Your task to perform on an android device: show emergency info Image 0: 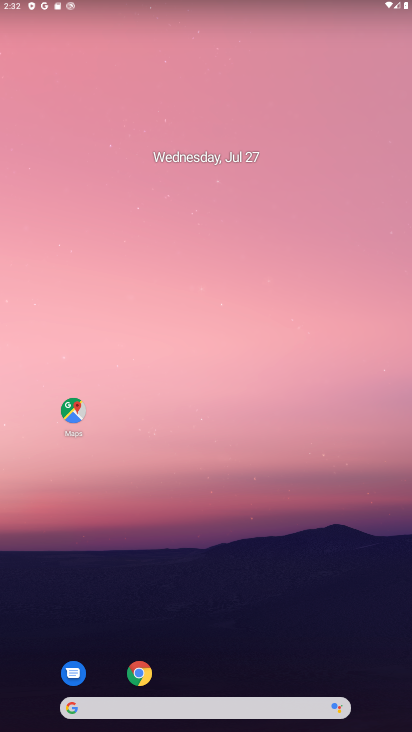
Step 0: drag from (303, 704) to (260, 0)
Your task to perform on an android device: show emergency info Image 1: 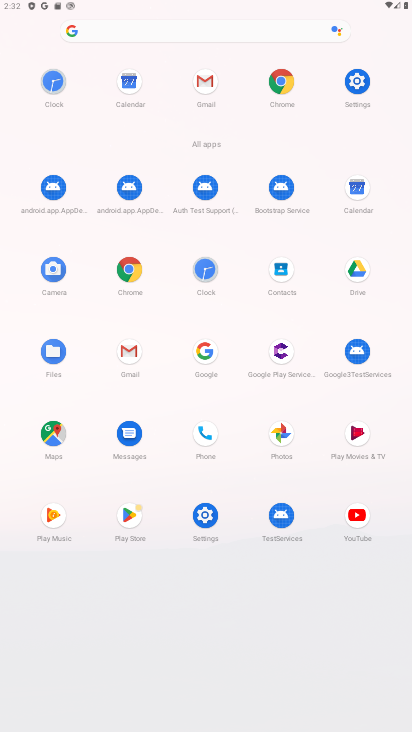
Step 1: drag from (151, 719) to (175, 367)
Your task to perform on an android device: show emergency info Image 2: 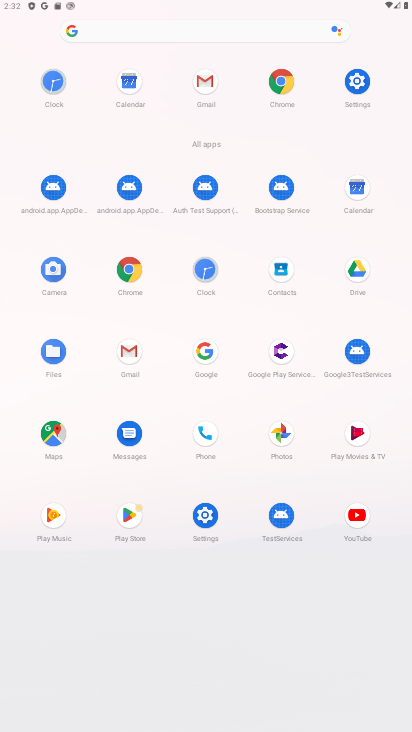
Step 2: click (205, 517)
Your task to perform on an android device: show emergency info Image 3: 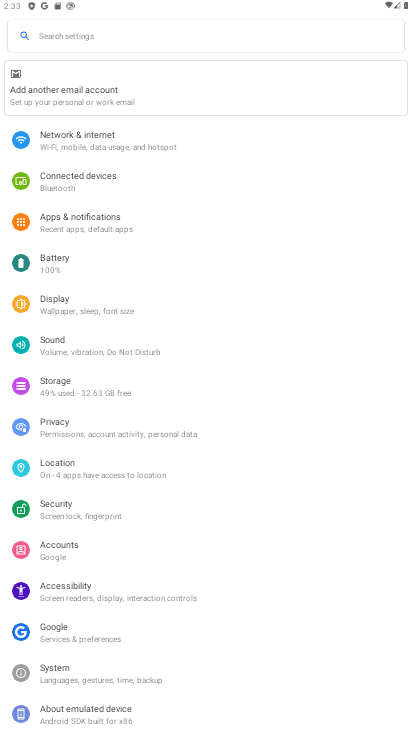
Step 3: drag from (281, 656) to (197, 46)
Your task to perform on an android device: show emergency info Image 4: 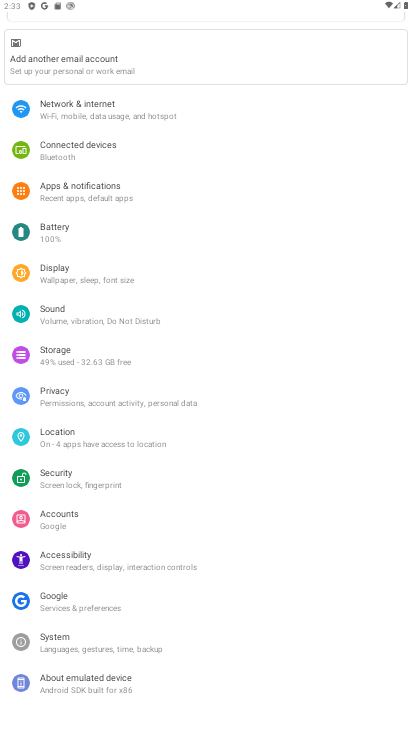
Step 4: click (76, 680)
Your task to perform on an android device: show emergency info Image 5: 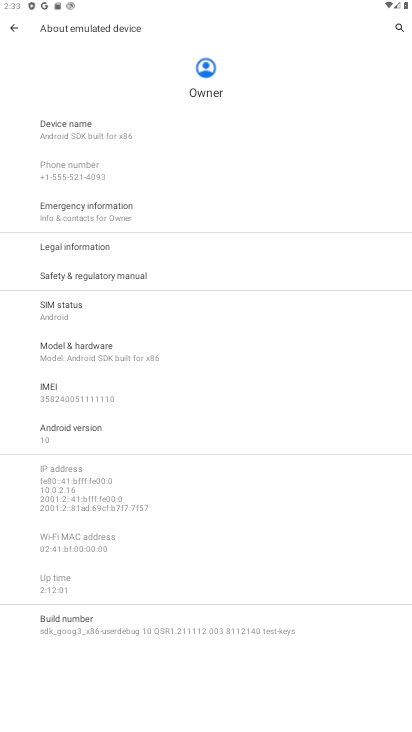
Step 5: click (119, 206)
Your task to perform on an android device: show emergency info Image 6: 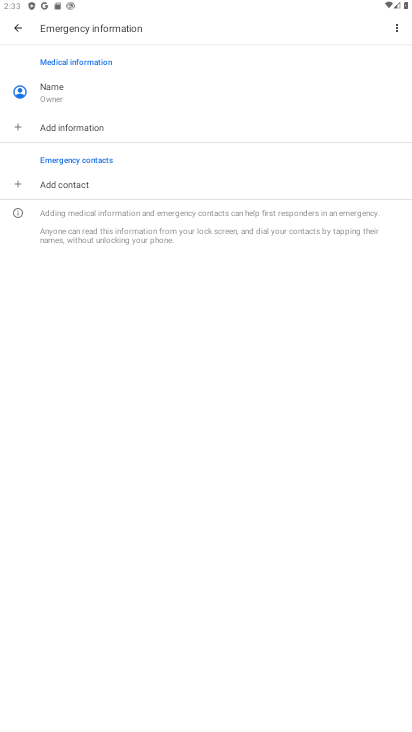
Step 6: task complete